Your task to perform on an android device: Show me recent news Image 0: 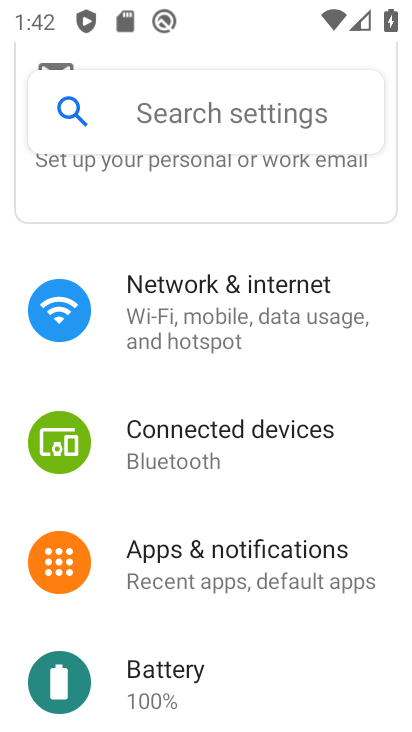
Step 0: press home button
Your task to perform on an android device: Show me recent news Image 1: 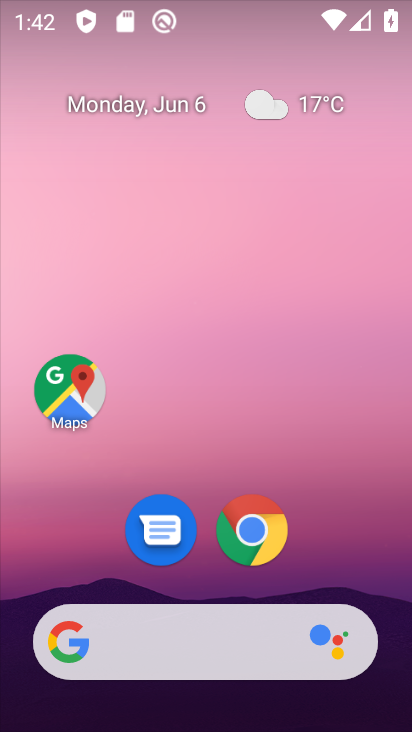
Step 1: drag from (314, 468) to (304, 226)
Your task to perform on an android device: Show me recent news Image 2: 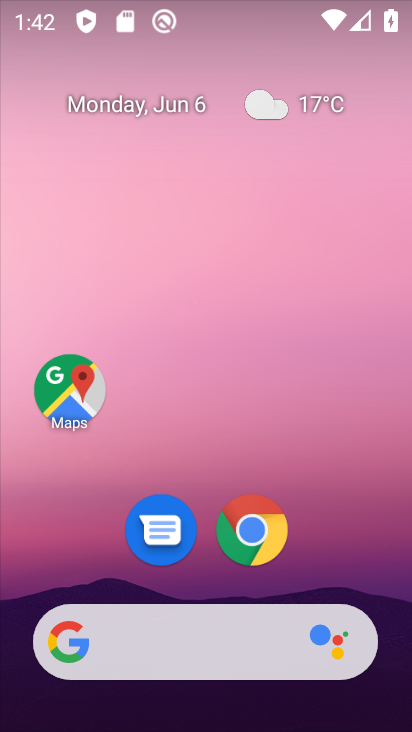
Step 2: click (235, 522)
Your task to perform on an android device: Show me recent news Image 3: 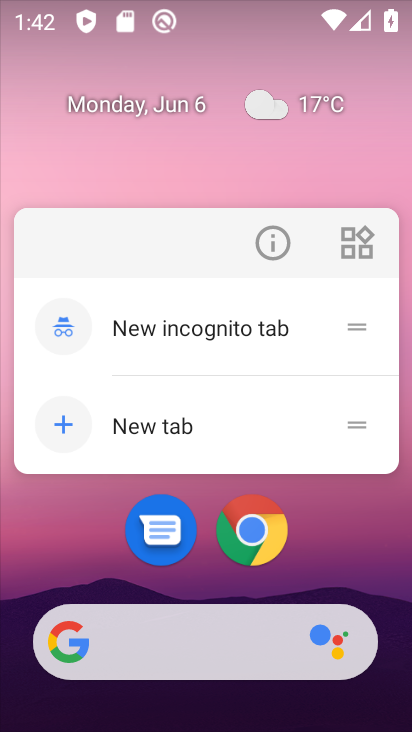
Step 3: click (248, 538)
Your task to perform on an android device: Show me recent news Image 4: 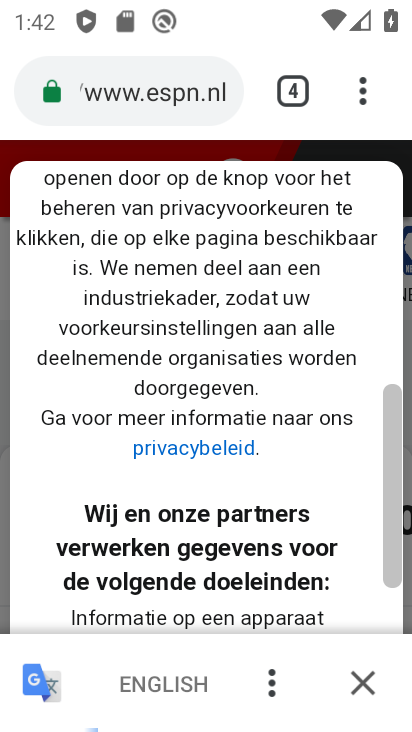
Step 4: click (362, 82)
Your task to perform on an android device: Show me recent news Image 5: 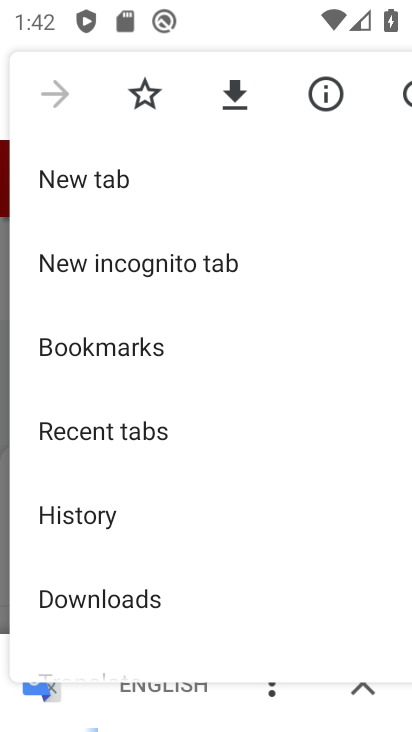
Step 5: click (114, 184)
Your task to perform on an android device: Show me recent news Image 6: 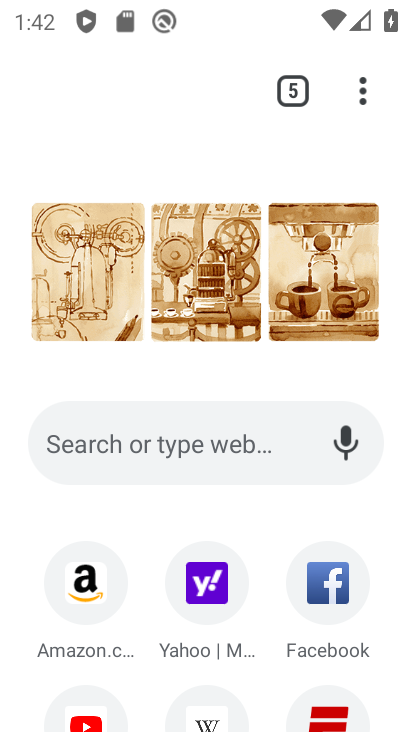
Step 6: click (215, 449)
Your task to perform on an android device: Show me recent news Image 7: 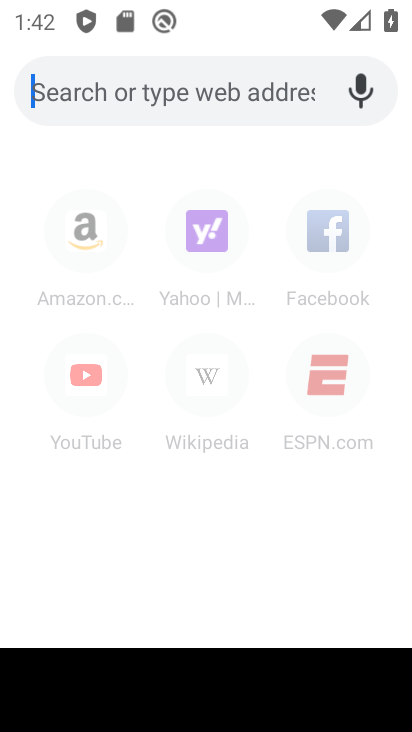
Step 7: type "Show me recent news"
Your task to perform on an android device: Show me recent news Image 8: 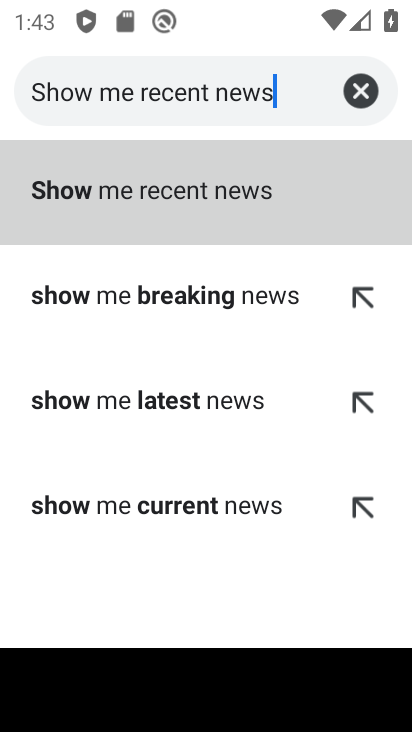
Step 8: click (314, 203)
Your task to perform on an android device: Show me recent news Image 9: 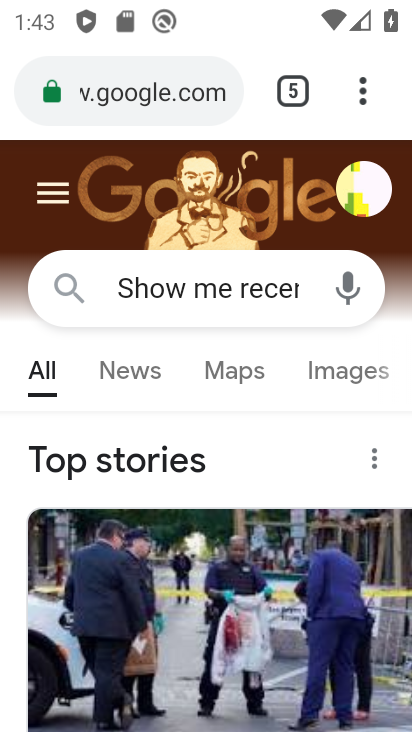
Step 9: task complete